Your task to perform on an android device: Turn on the flashlight Image 0: 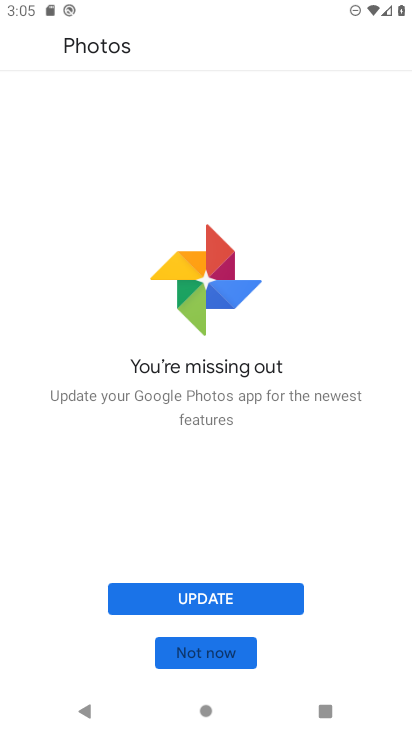
Step 0: press home button
Your task to perform on an android device: Turn on the flashlight Image 1: 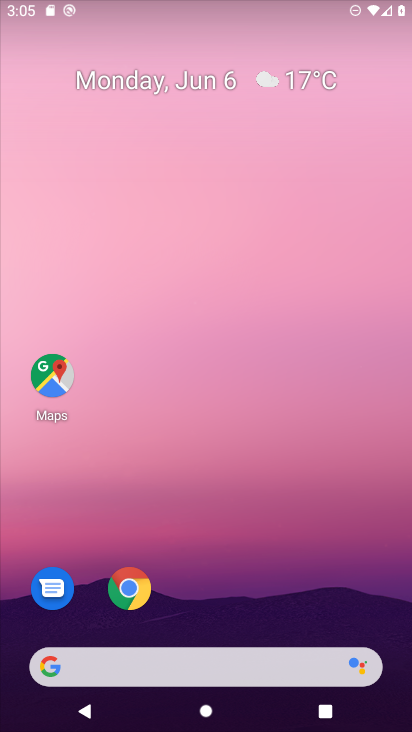
Step 1: task complete